Your task to perform on an android device: Clear all items from cart on newegg. Image 0: 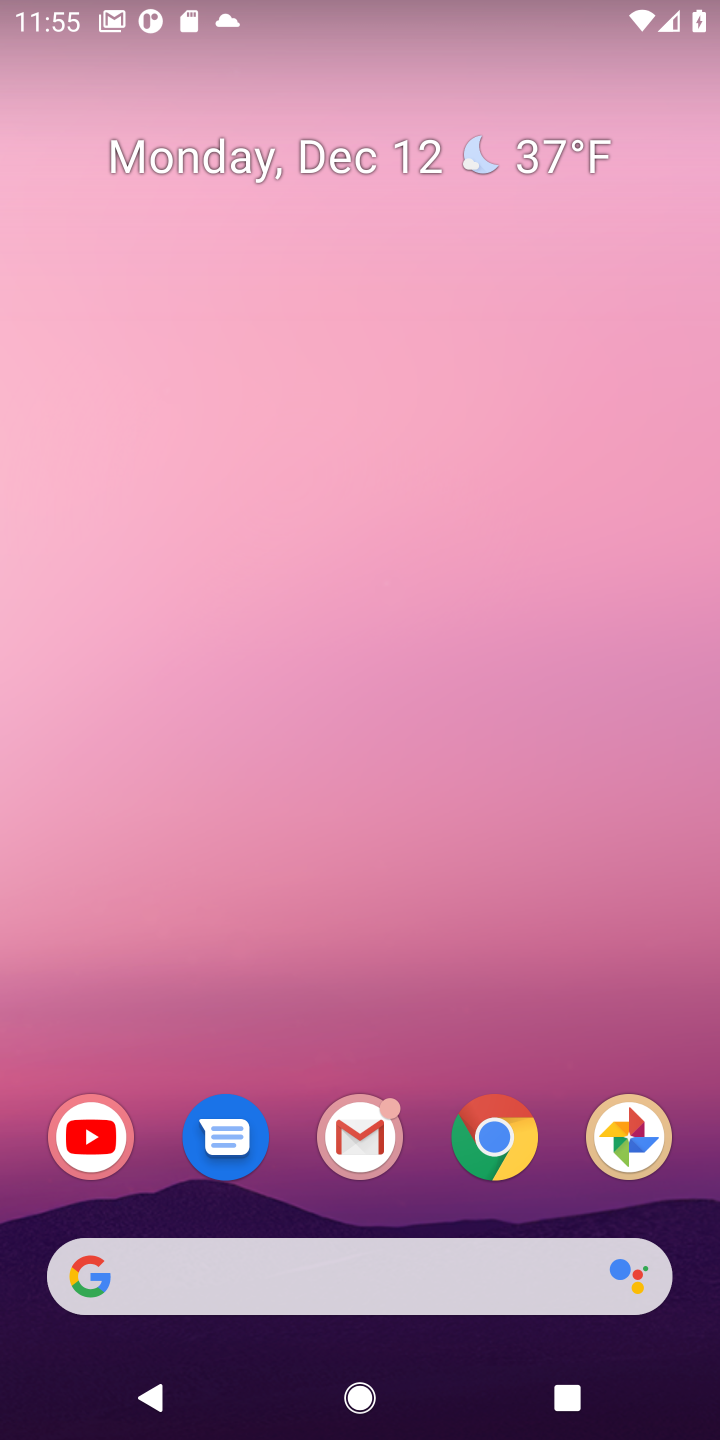
Step 0: click (306, 1299)
Your task to perform on an android device: Clear all items from cart on newegg. Image 1: 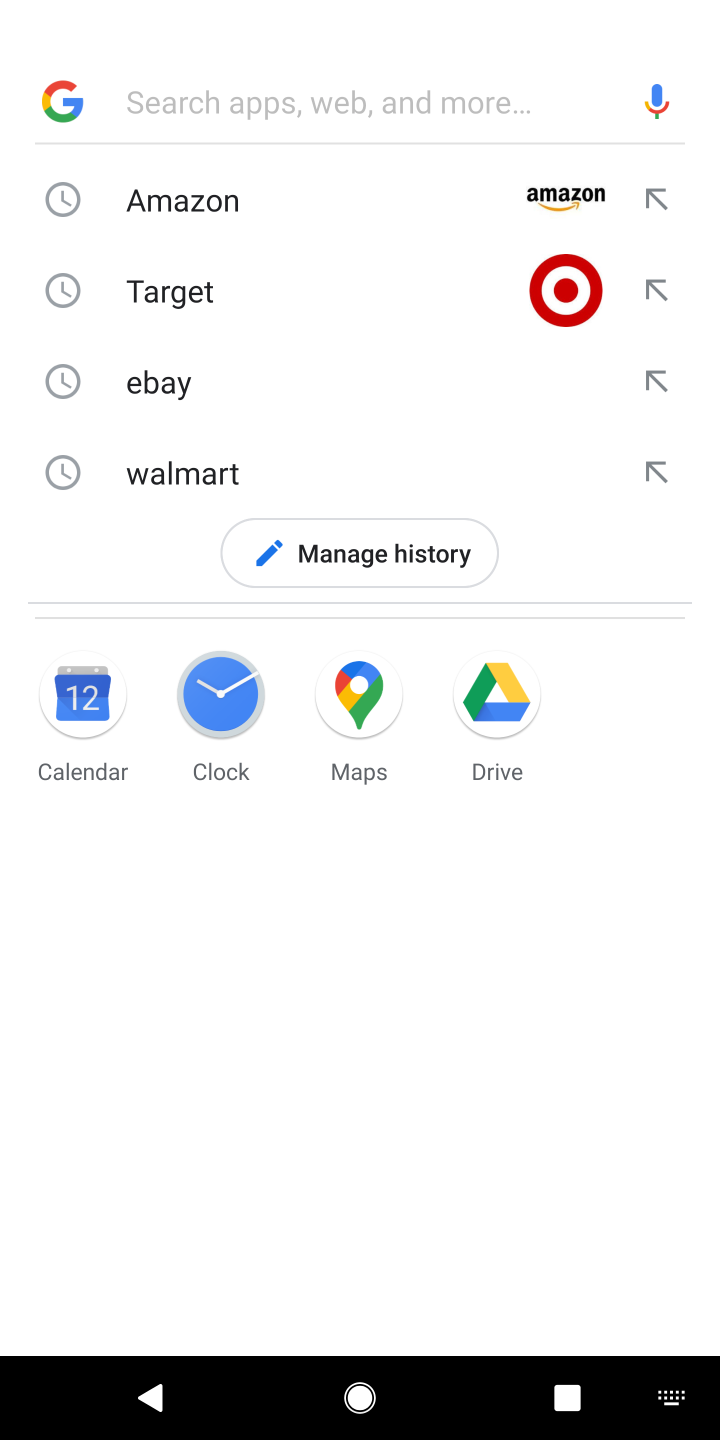
Step 1: type "newegg"
Your task to perform on an android device: Clear all items from cart on newegg. Image 2: 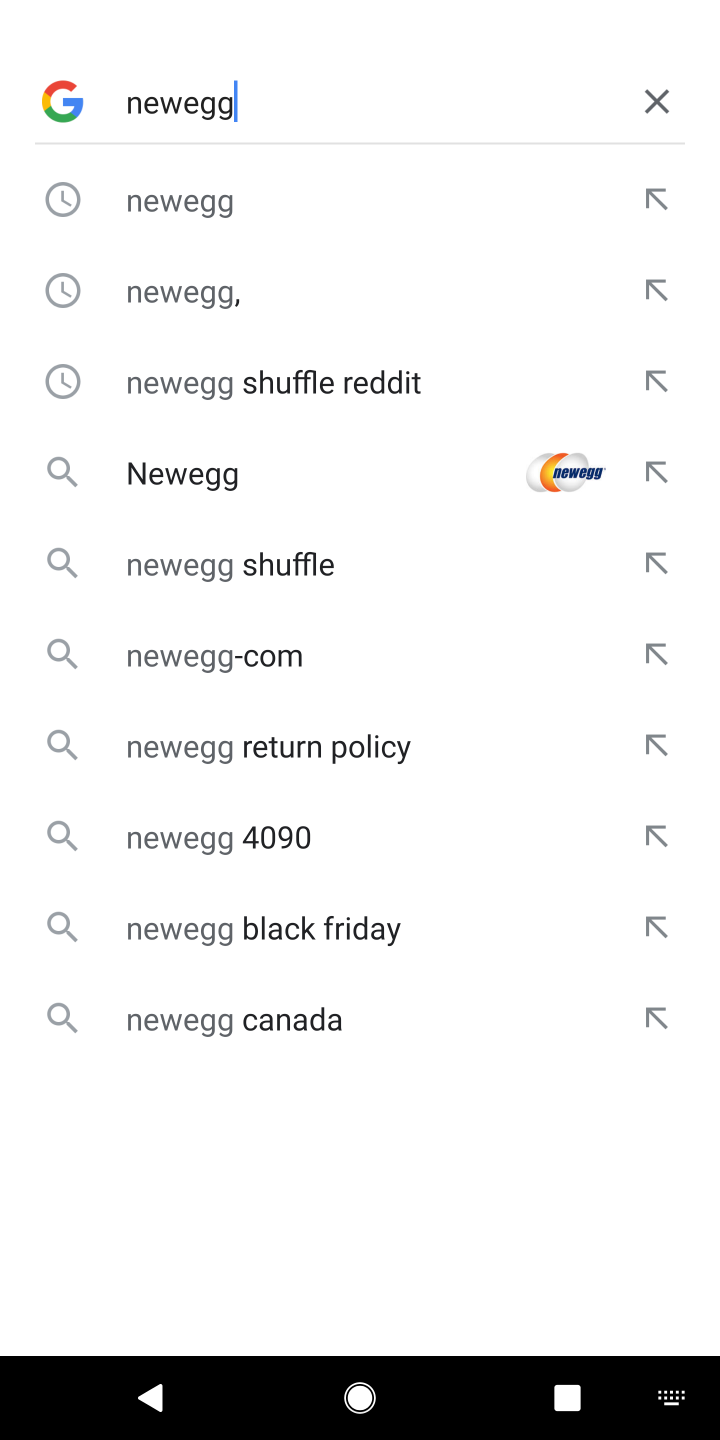
Step 2: click (266, 199)
Your task to perform on an android device: Clear all items from cart on newegg. Image 3: 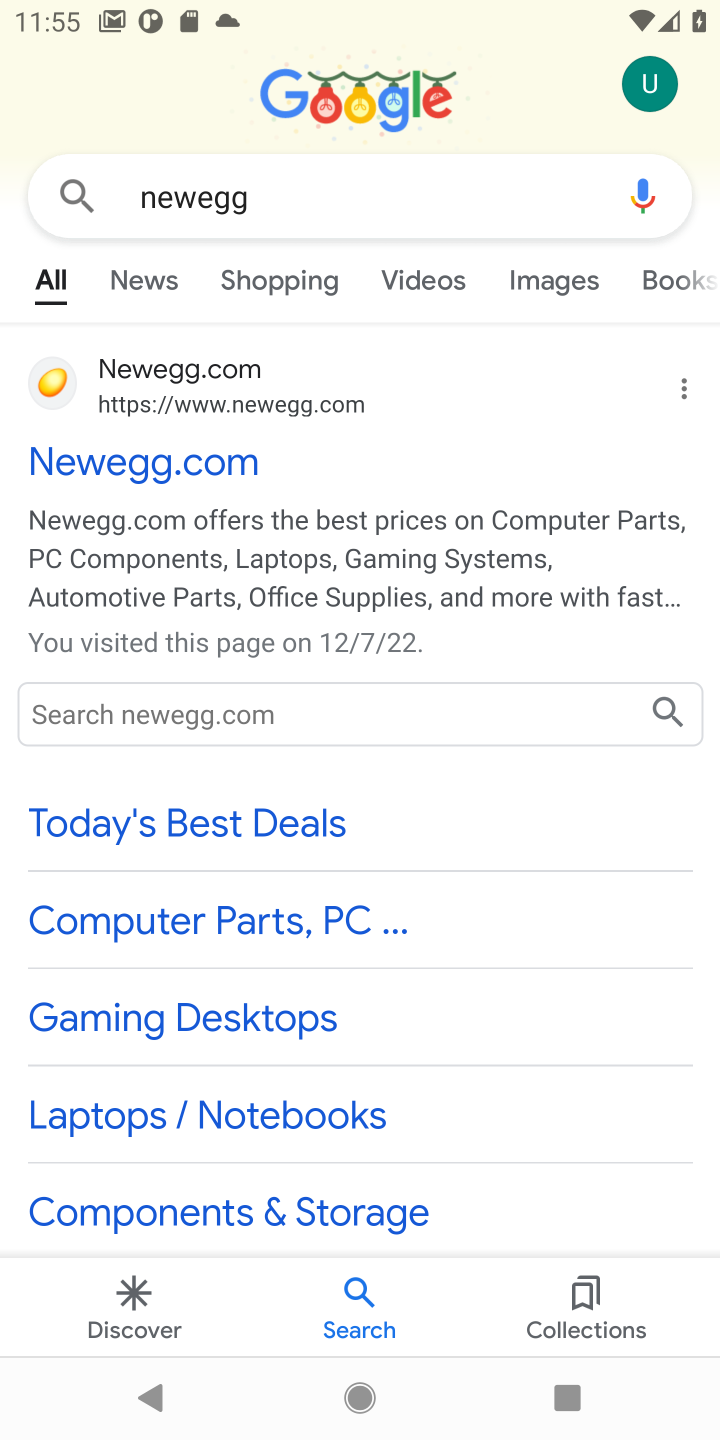
Step 3: click (171, 463)
Your task to perform on an android device: Clear all items from cart on newegg. Image 4: 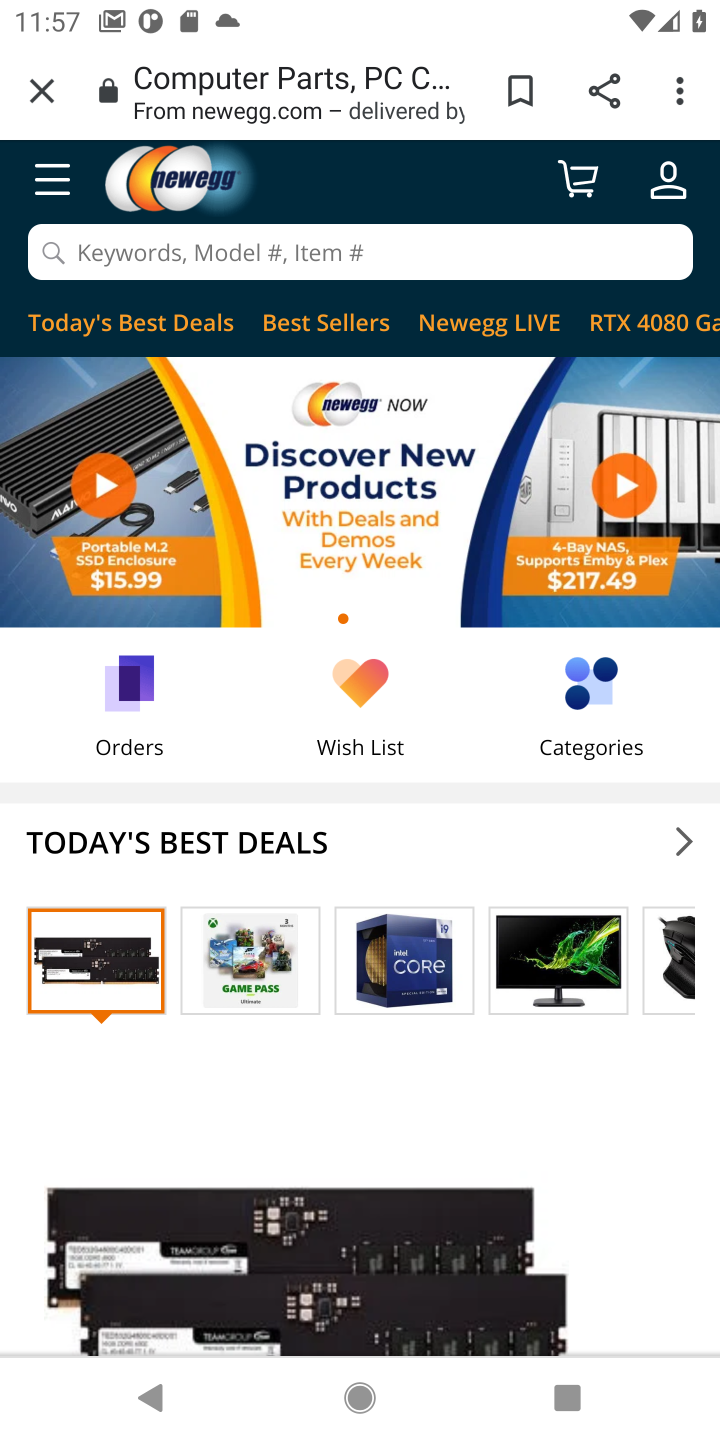
Step 4: click (274, 266)
Your task to perform on an android device: Clear all items from cart on newegg. Image 5: 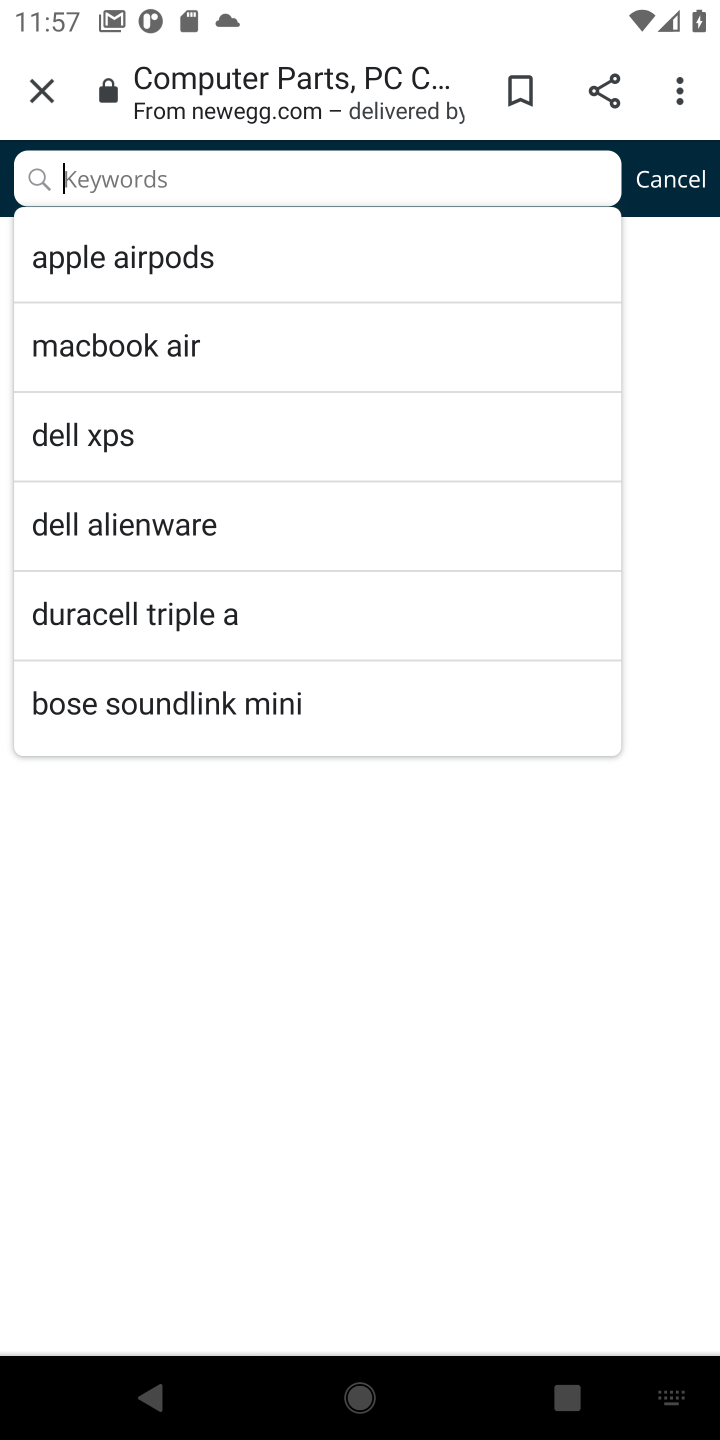
Step 5: click (649, 180)
Your task to perform on an android device: Clear all items from cart on newegg. Image 6: 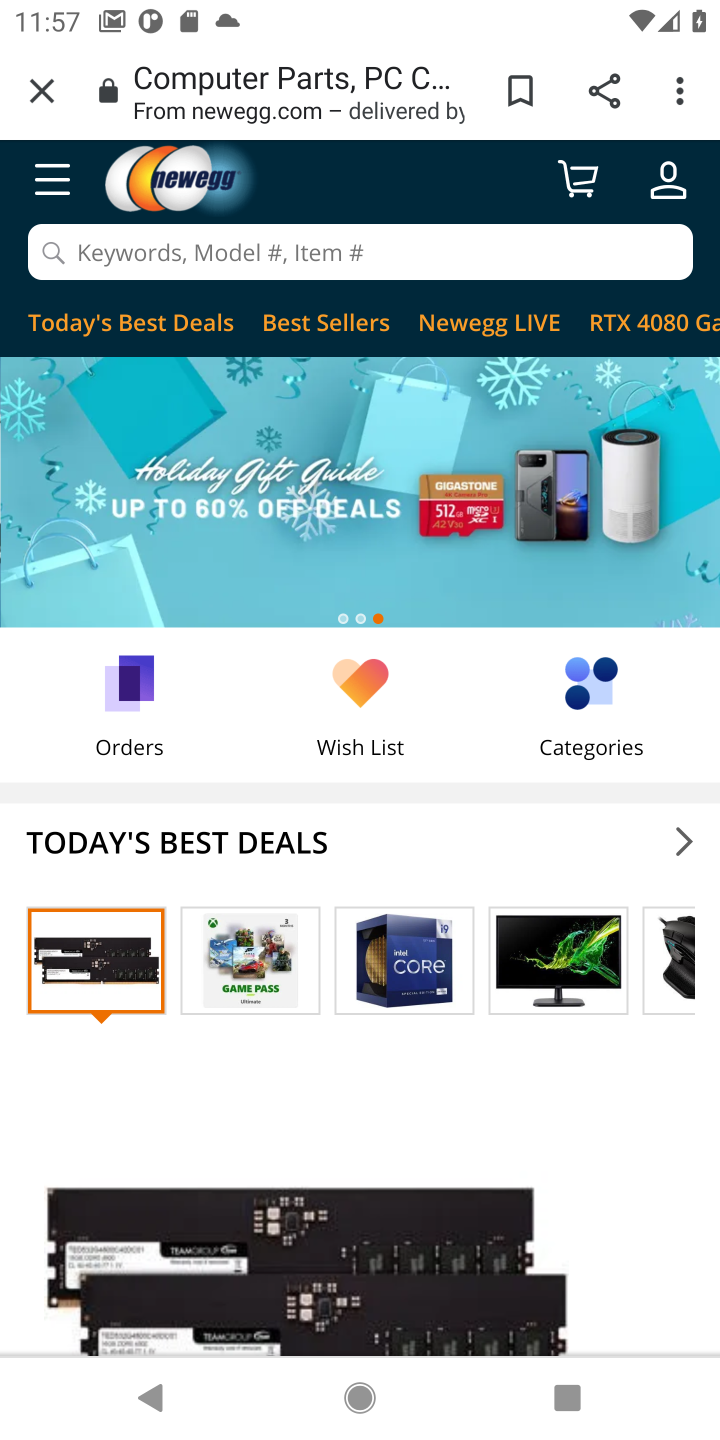
Step 6: click (568, 170)
Your task to perform on an android device: Clear all items from cart on newegg. Image 7: 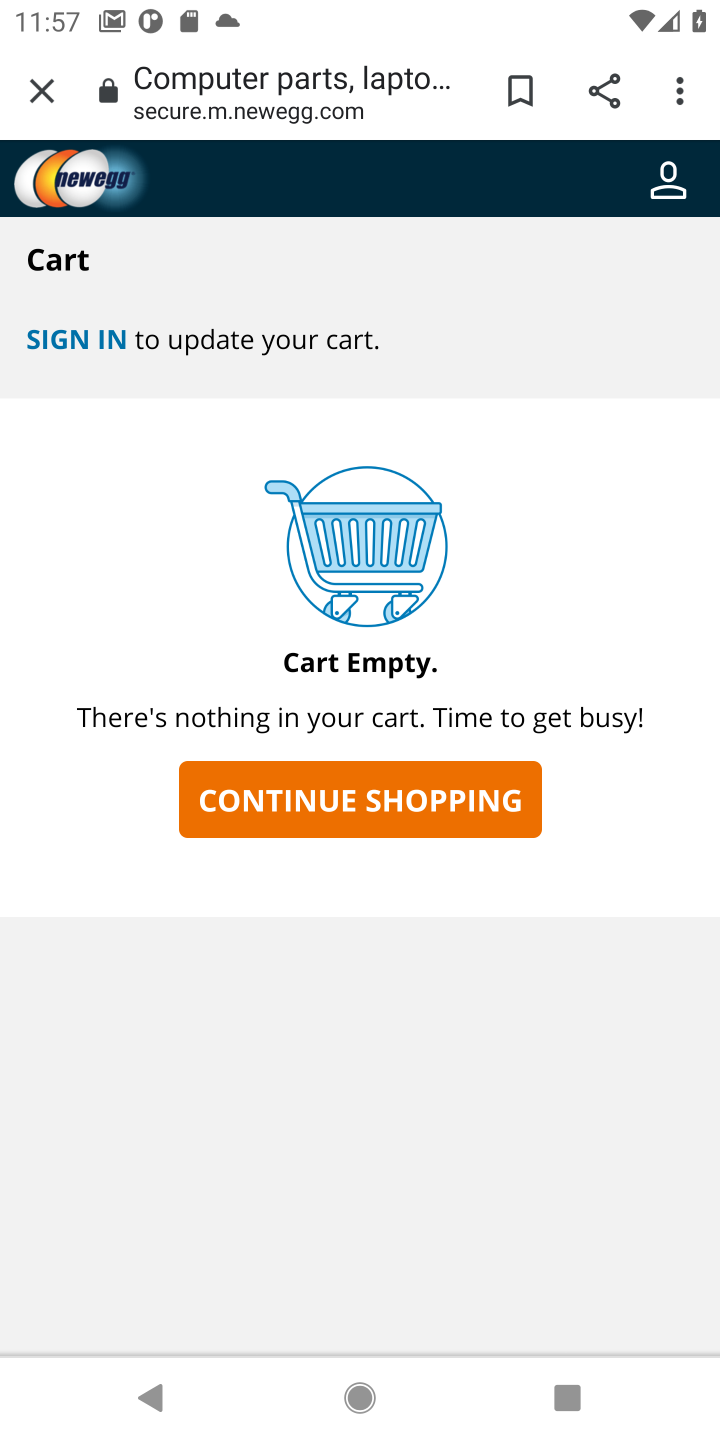
Step 7: task complete